Your task to perform on an android device: Search for Italian restaurants on Maps Image 0: 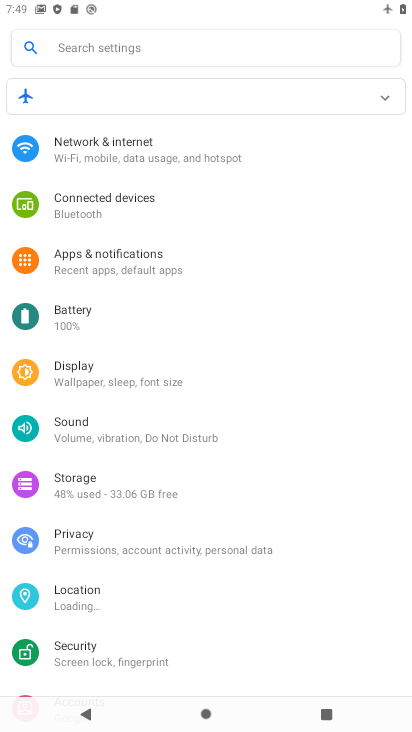
Step 0: press home button
Your task to perform on an android device: Search for Italian restaurants on Maps Image 1: 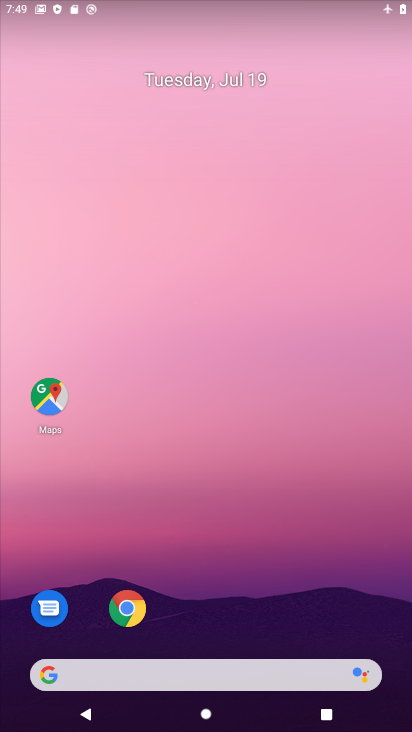
Step 1: click (53, 402)
Your task to perform on an android device: Search for Italian restaurants on Maps Image 2: 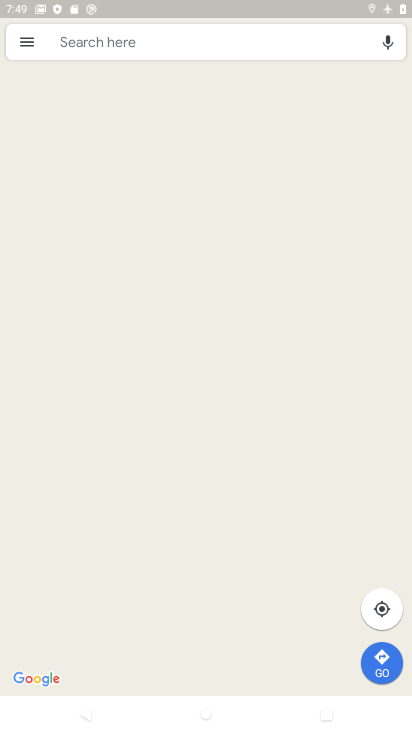
Step 2: click (175, 43)
Your task to perform on an android device: Search for Italian restaurants on Maps Image 3: 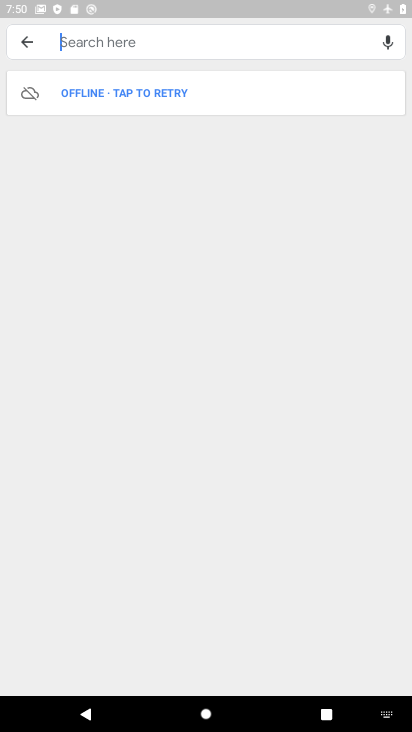
Step 3: type "italian restaurant"
Your task to perform on an android device: Search for Italian restaurants on Maps Image 4: 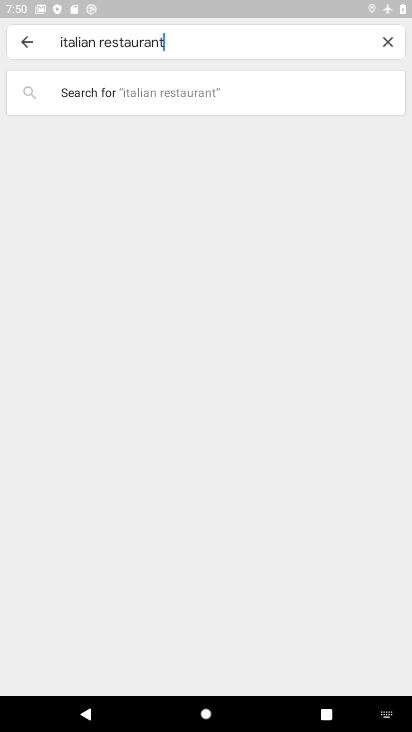
Step 4: click (150, 89)
Your task to perform on an android device: Search for Italian restaurants on Maps Image 5: 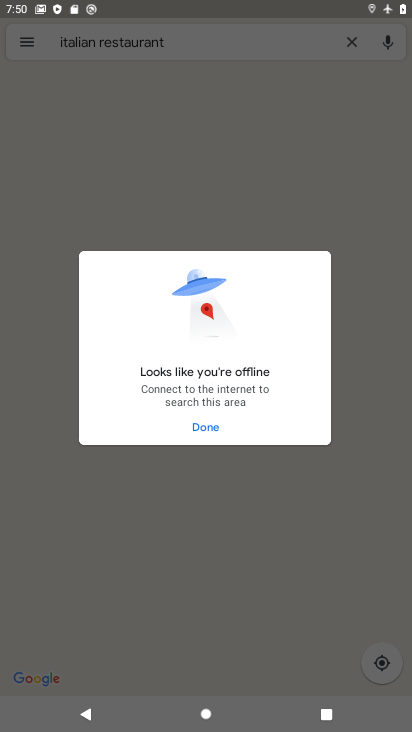
Step 5: click (161, 10)
Your task to perform on an android device: Search for Italian restaurants on Maps Image 6: 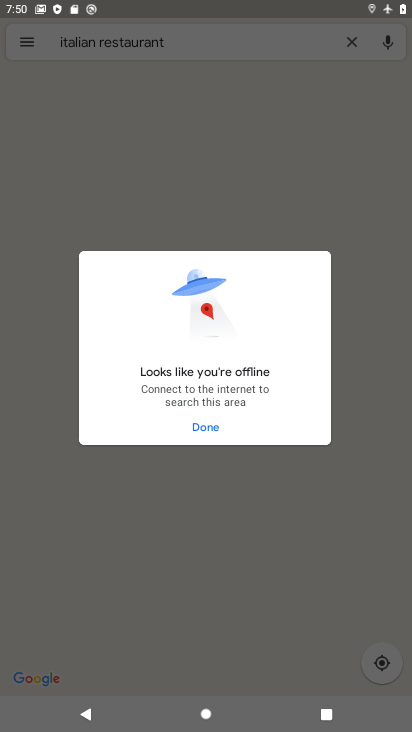
Step 6: drag from (161, 10) to (381, 600)
Your task to perform on an android device: Search for Italian restaurants on Maps Image 7: 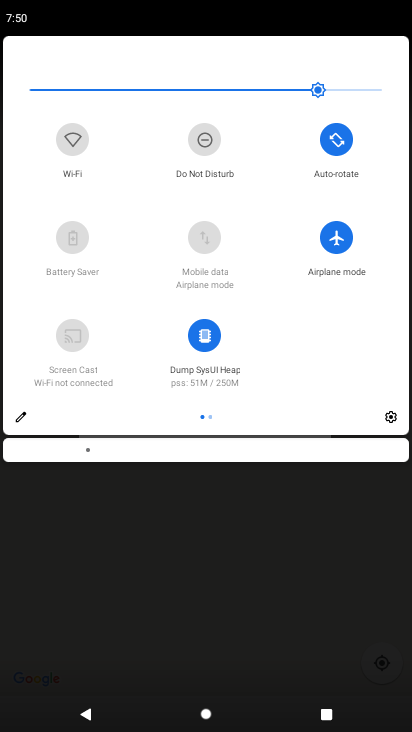
Step 7: click (347, 242)
Your task to perform on an android device: Search for Italian restaurants on Maps Image 8: 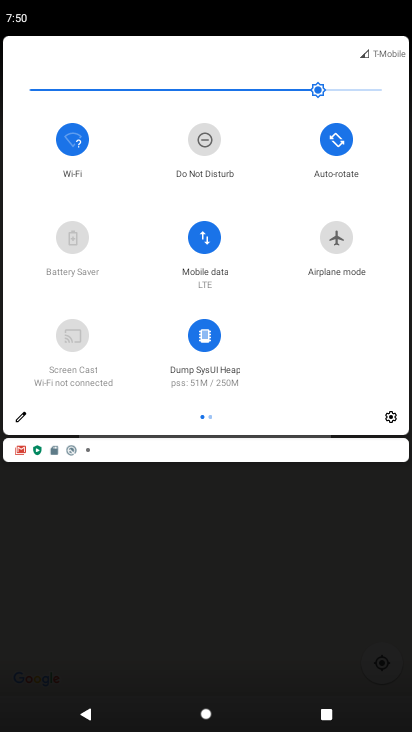
Step 8: task complete